Your task to perform on an android device: Do I have any events this weekend? Image 0: 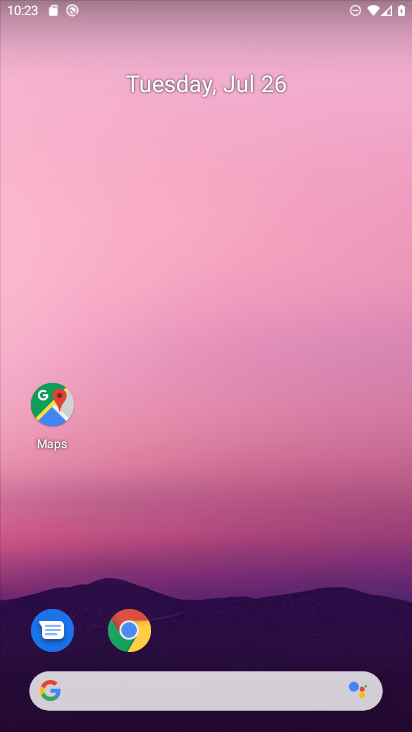
Step 0: drag from (361, 635) to (328, 181)
Your task to perform on an android device: Do I have any events this weekend? Image 1: 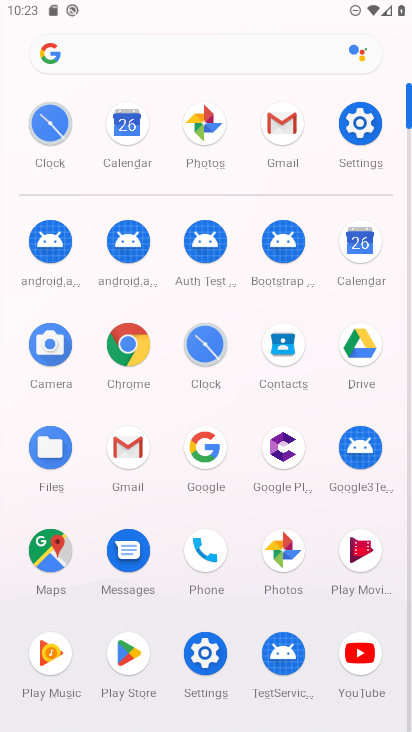
Step 1: click (363, 243)
Your task to perform on an android device: Do I have any events this weekend? Image 2: 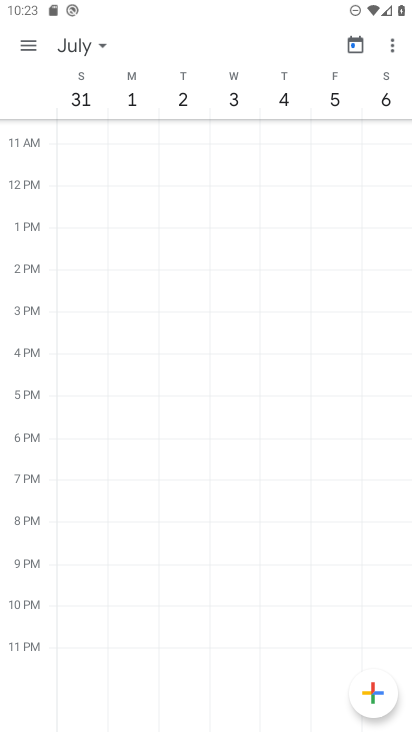
Step 2: click (103, 43)
Your task to perform on an android device: Do I have any events this weekend? Image 3: 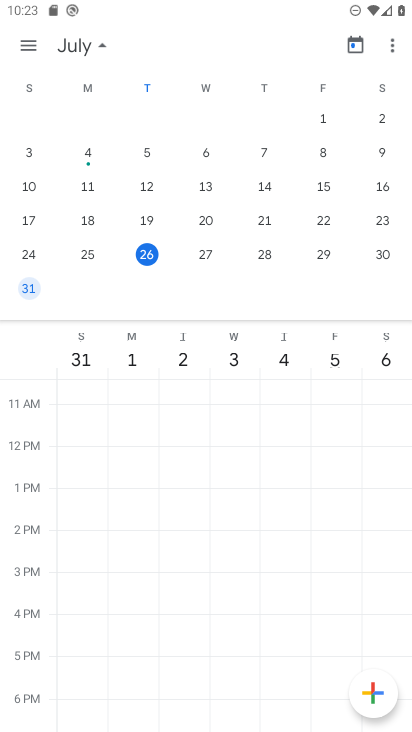
Step 3: click (149, 254)
Your task to perform on an android device: Do I have any events this weekend? Image 4: 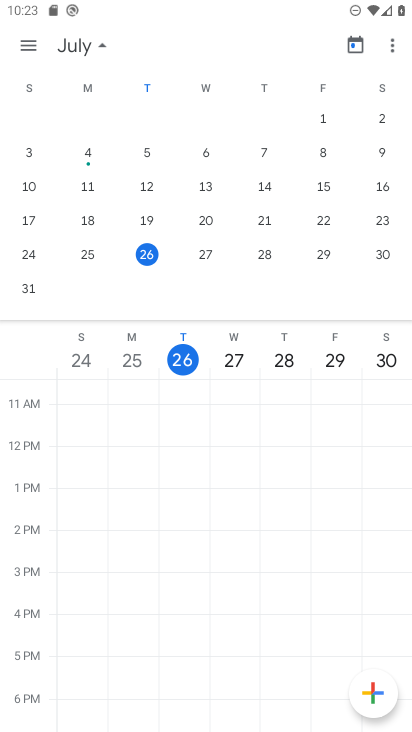
Step 4: task complete